Your task to perform on an android device: What's the weather going to be tomorrow? Image 0: 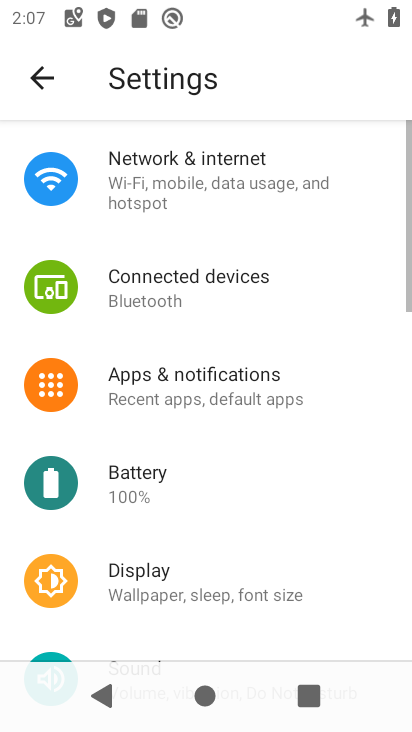
Step 0: press home button
Your task to perform on an android device: What's the weather going to be tomorrow? Image 1: 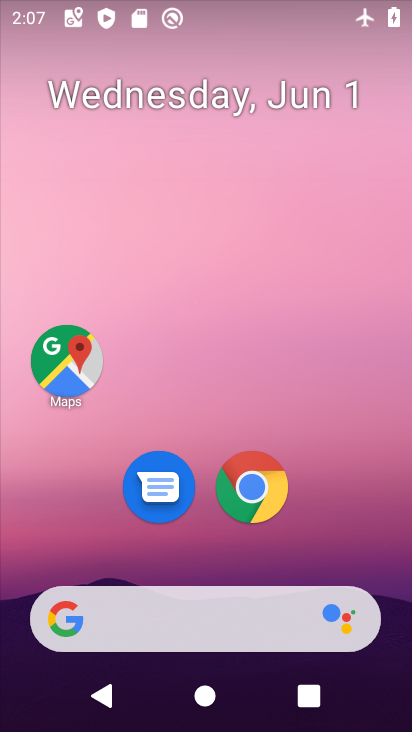
Step 1: click (220, 619)
Your task to perform on an android device: What's the weather going to be tomorrow? Image 2: 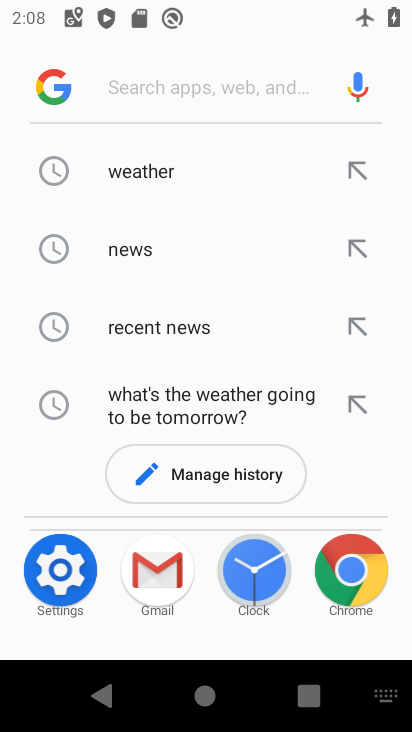
Step 2: click (187, 175)
Your task to perform on an android device: What's the weather going to be tomorrow? Image 3: 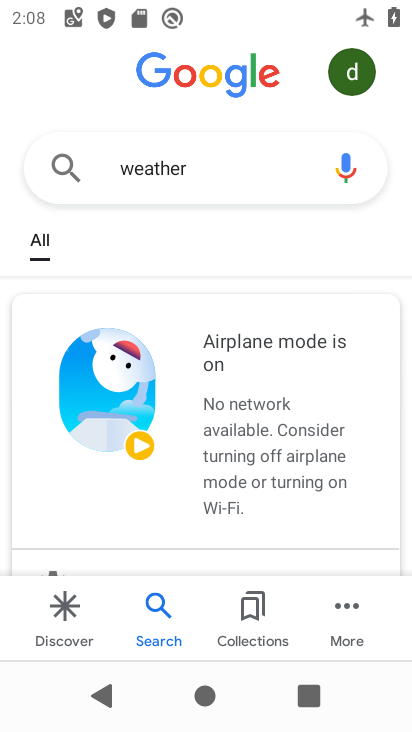
Step 3: task complete